Your task to perform on an android device: toggle notification dots Image 0: 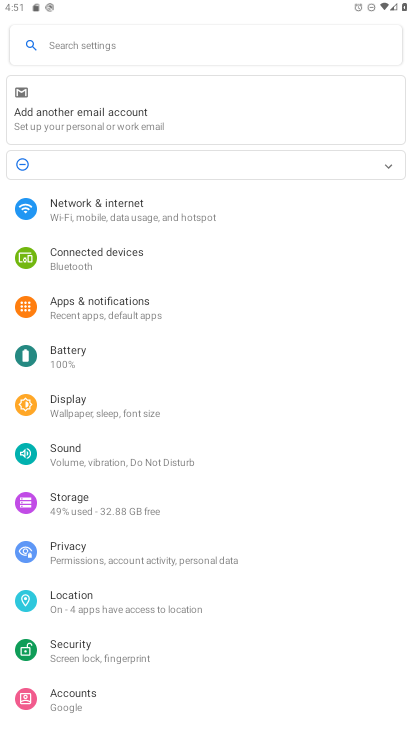
Step 0: click (145, 307)
Your task to perform on an android device: toggle notification dots Image 1: 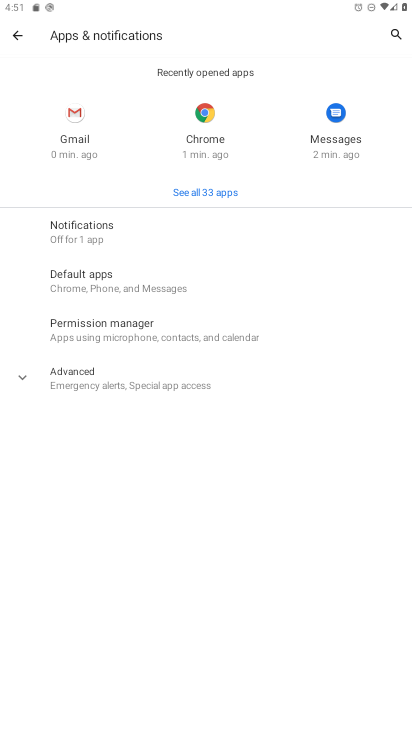
Step 1: click (85, 231)
Your task to perform on an android device: toggle notification dots Image 2: 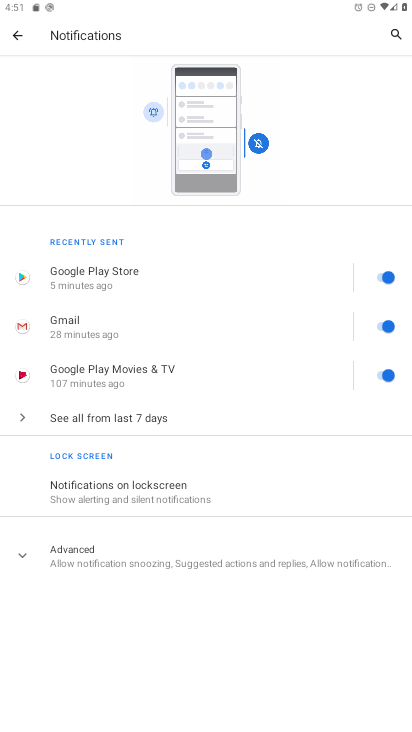
Step 2: click (156, 565)
Your task to perform on an android device: toggle notification dots Image 3: 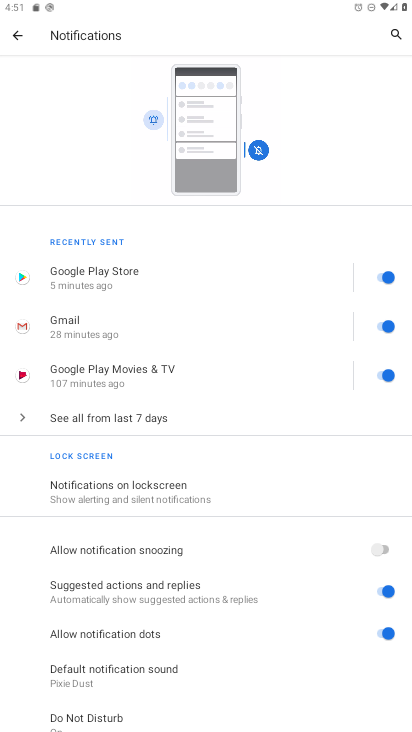
Step 3: click (390, 632)
Your task to perform on an android device: toggle notification dots Image 4: 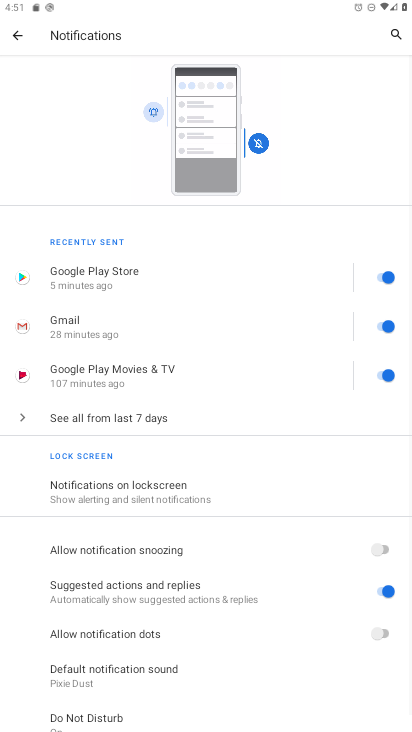
Step 4: task complete